Your task to perform on an android device: Open Google Maps Image 0: 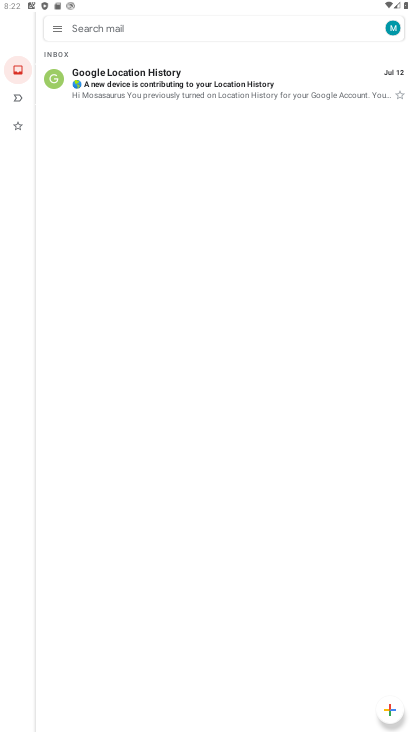
Step 0: press home button
Your task to perform on an android device: Open Google Maps Image 1: 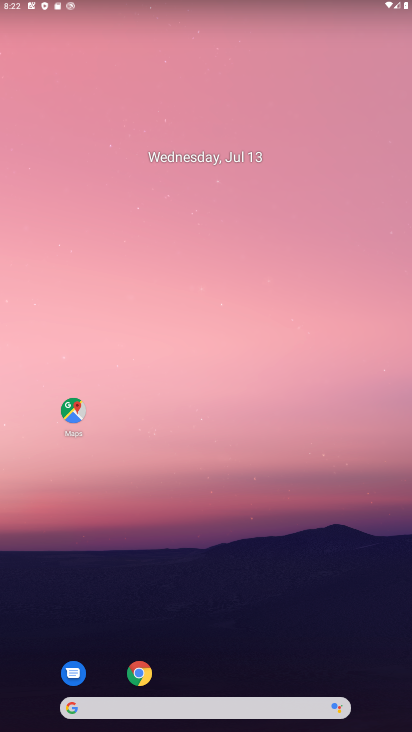
Step 1: drag from (327, 633) to (267, 185)
Your task to perform on an android device: Open Google Maps Image 2: 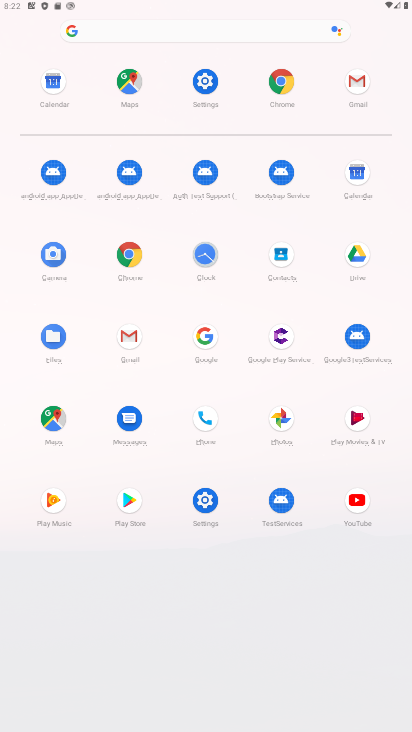
Step 2: click (56, 420)
Your task to perform on an android device: Open Google Maps Image 3: 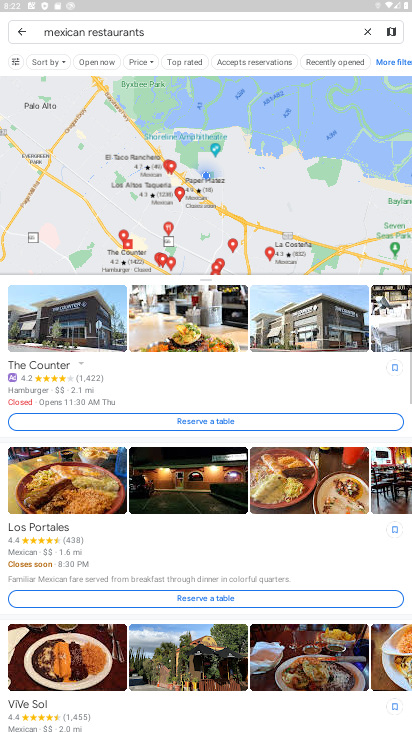
Step 3: task complete